Your task to perform on an android device: turn pop-ups off in chrome Image 0: 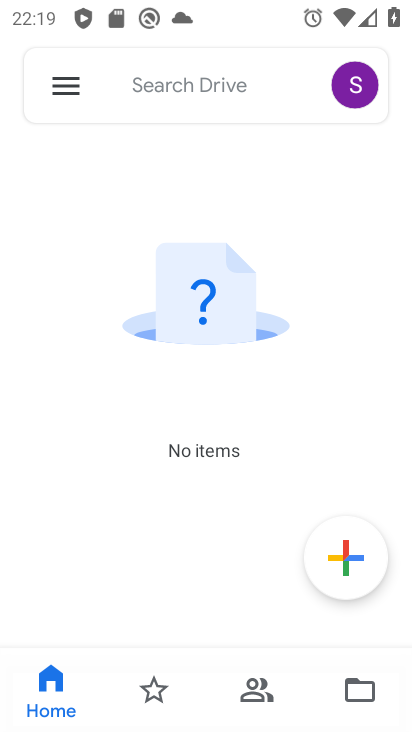
Step 0: press home button
Your task to perform on an android device: turn pop-ups off in chrome Image 1: 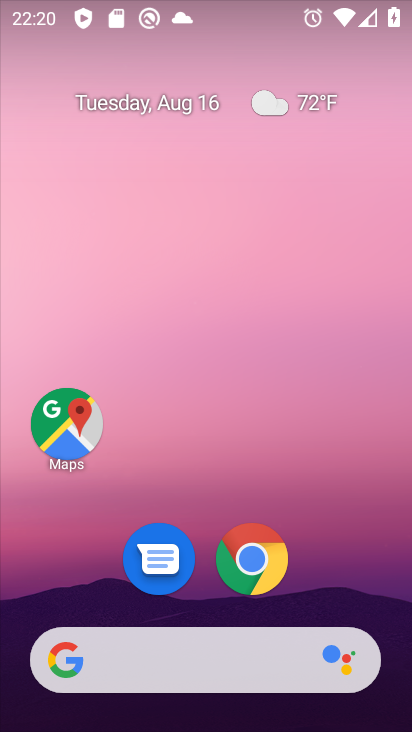
Step 1: click (251, 559)
Your task to perform on an android device: turn pop-ups off in chrome Image 2: 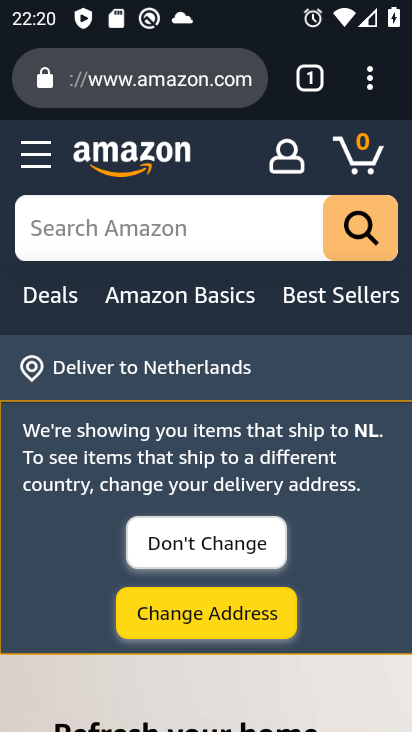
Step 2: click (383, 82)
Your task to perform on an android device: turn pop-ups off in chrome Image 3: 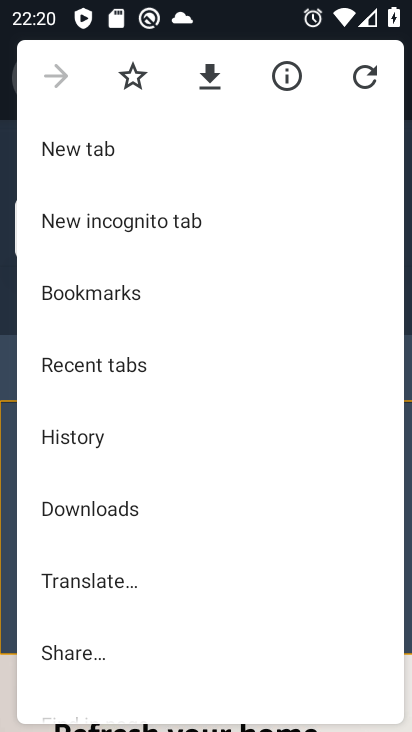
Step 3: drag from (178, 497) to (221, 379)
Your task to perform on an android device: turn pop-ups off in chrome Image 4: 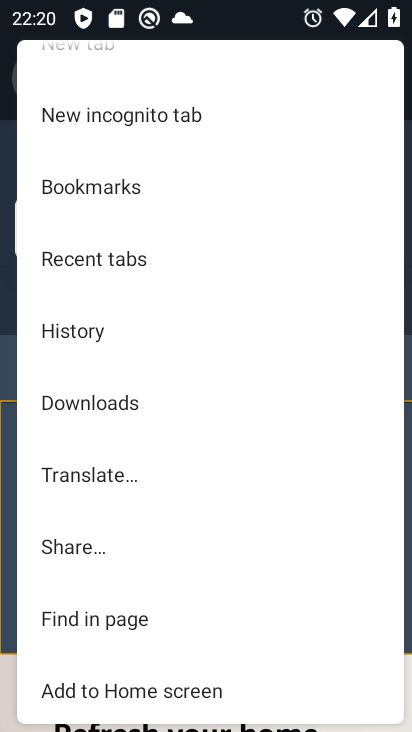
Step 4: drag from (206, 505) to (229, 446)
Your task to perform on an android device: turn pop-ups off in chrome Image 5: 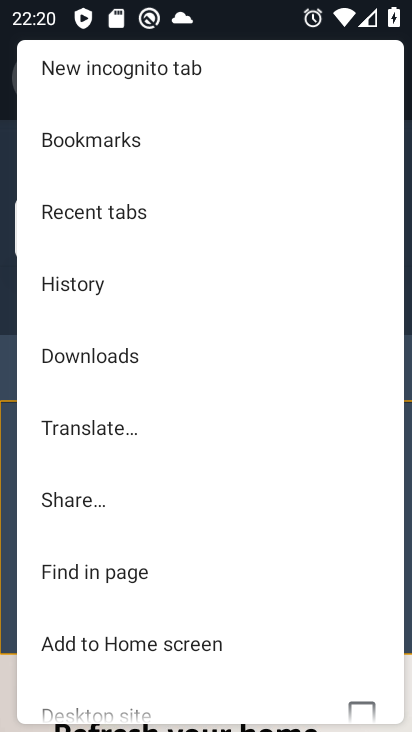
Step 5: drag from (100, 537) to (219, 402)
Your task to perform on an android device: turn pop-ups off in chrome Image 6: 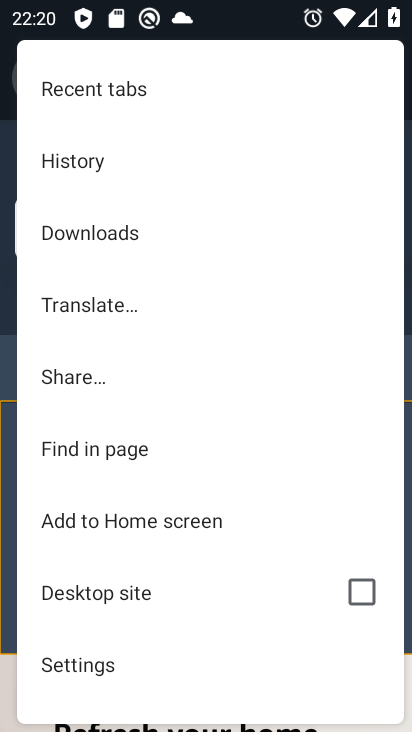
Step 6: drag from (184, 603) to (298, 435)
Your task to perform on an android device: turn pop-ups off in chrome Image 7: 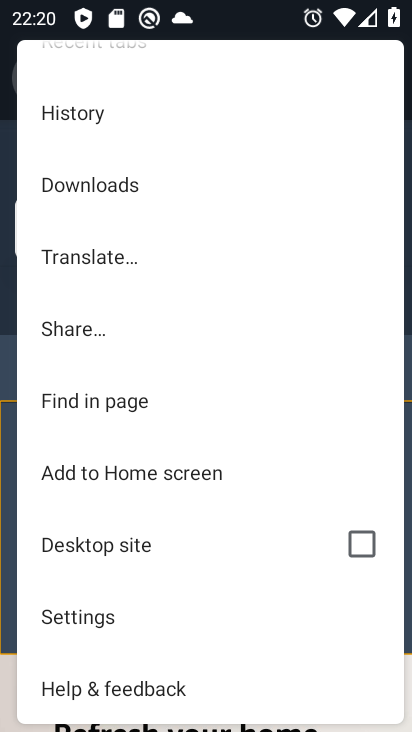
Step 7: click (97, 620)
Your task to perform on an android device: turn pop-ups off in chrome Image 8: 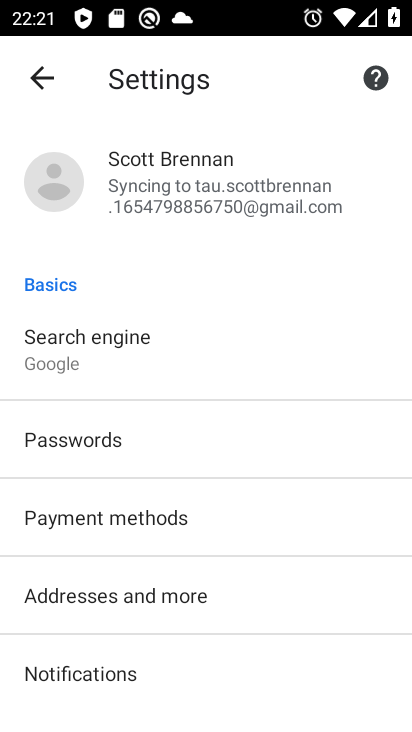
Step 8: drag from (111, 557) to (224, 382)
Your task to perform on an android device: turn pop-ups off in chrome Image 9: 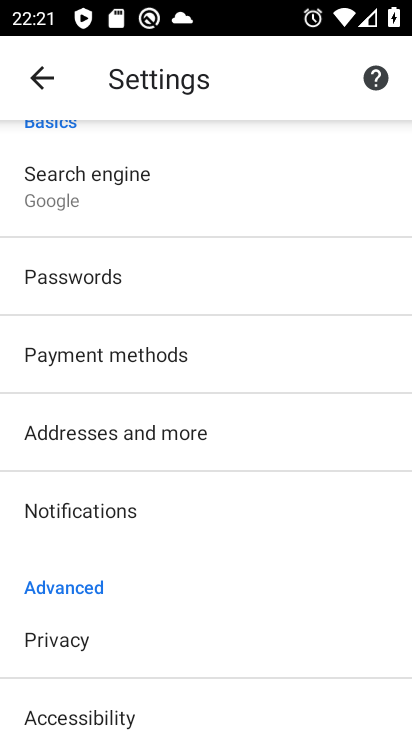
Step 9: drag from (154, 561) to (203, 447)
Your task to perform on an android device: turn pop-ups off in chrome Image 10: 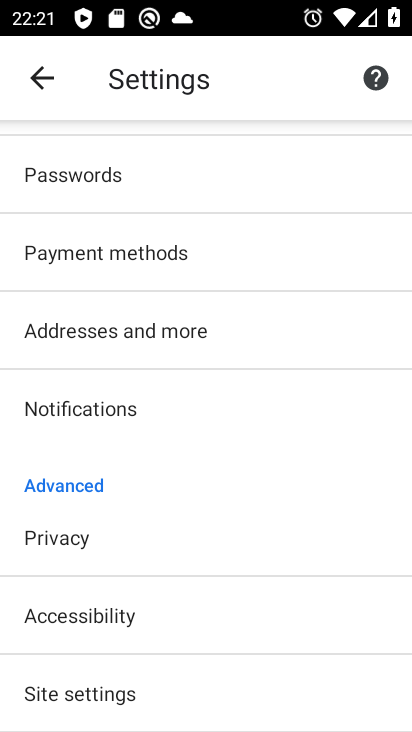
Step 10: drag from (181, 599) to (268, 490)
Your task to perform on an android device: turn pop-ups off in chrome Image 11: 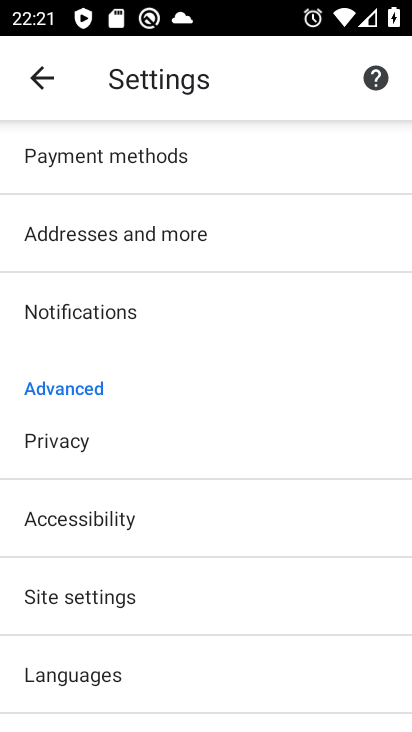
Step 11: drag from (179, 611) to (249, 501)
Your task to perform on an android device: turn pop-ups off in chrome Image 12: 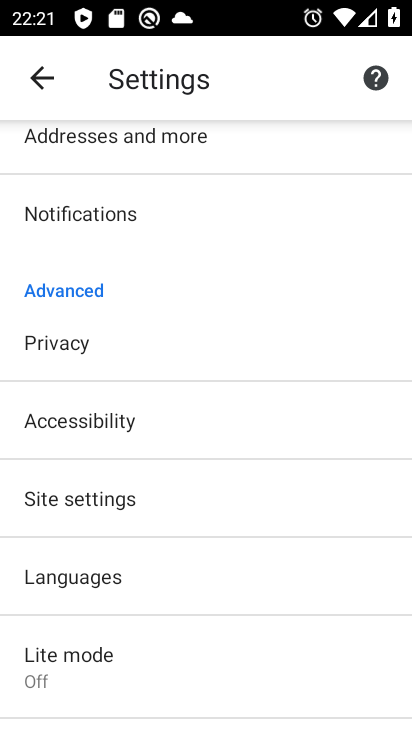
Step 12: drag from (159, 642) to (211, 527)
Your task to perform on an android device: turn pop-ups off in chrome Image 13: 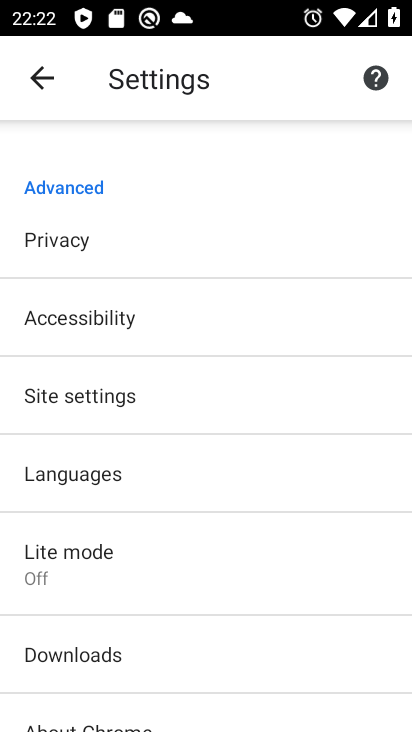
Step 13: click (125, 400)
Your task to perform on an android device: turn pop-ups off in chrome Image 14: 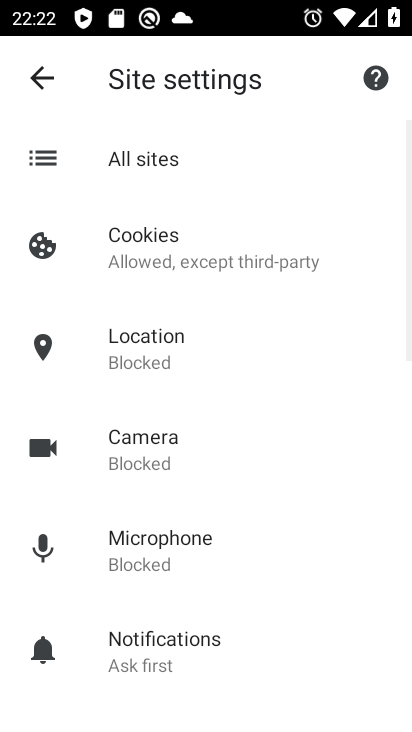
Step 14: drag from (198, 589) to (224, 471)
Your task to perform on an android device: turn pop-ups off in chrome Image 15: 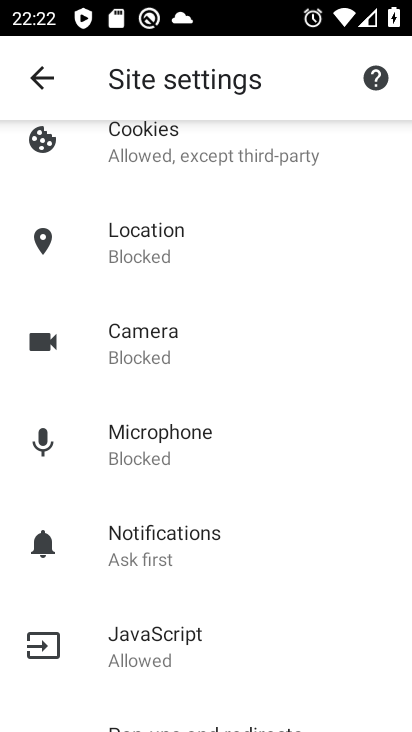
Step 15: drag from (206, 586) to (240, 493)
Your task to perform on an android device: turn pop-ups off in chrome Image 16: 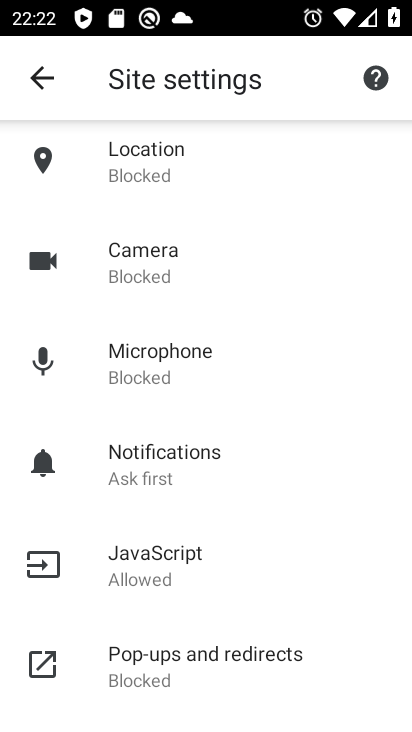
Step 16: drag from (199, 600) to (257, 517)
Your task to perform on an android device: turn pop-ups off in chrome Image 17: 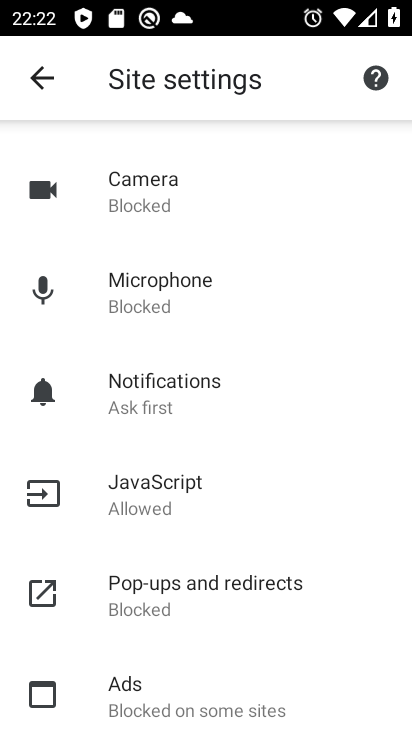
Step 17: drag from (195, 630) to (285, 528)
Your task to perform on an android device: turn pop-ups off in chrome Image 18: 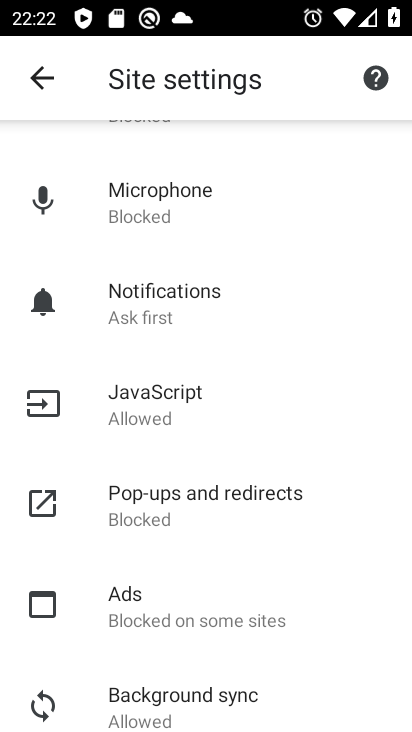
Step 18: click (227, 501)
Your task to perform on an android device: turn pop-ups off in chrome Image 19: 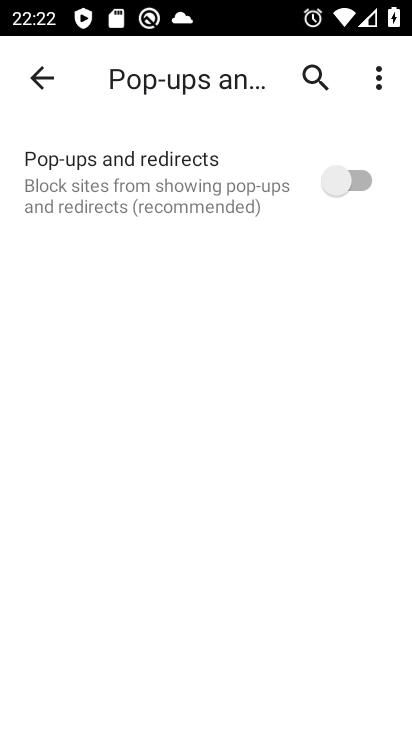
Step 19: task complete